Your task to perform on an android device: What's the weather? Image 0: 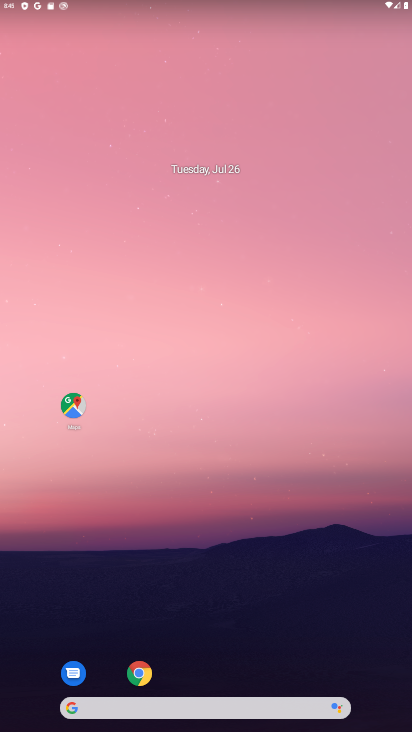
Step 0: drag from (164, 58) to (171, 6)
Your task to perform on an android device: What's the weather? Image 1: 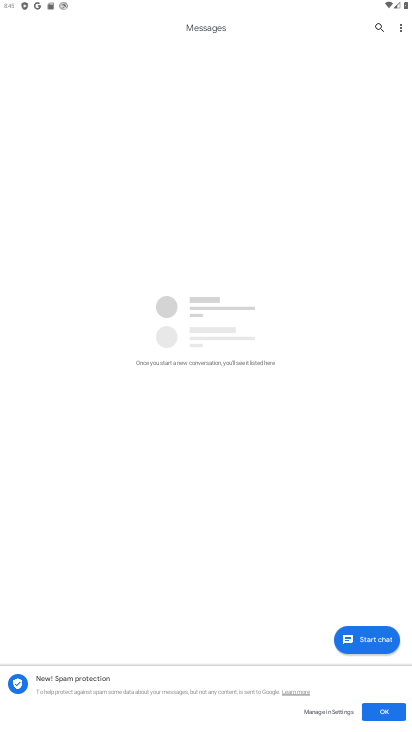
Step 1: drag from (258, 380) to (242, 60)
Your task to perform on an android device: What's the weather? Image 2: 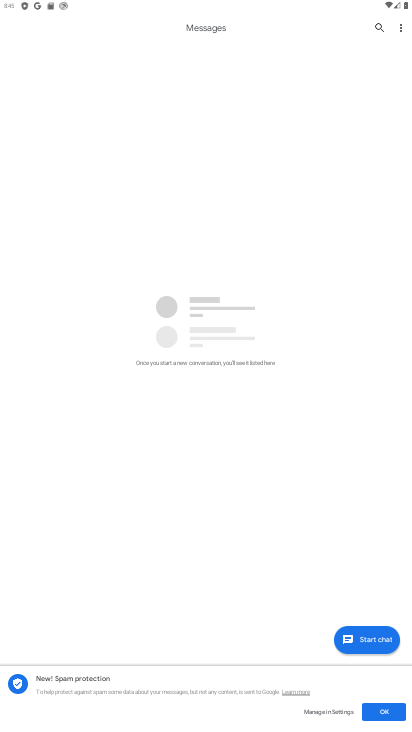
Step 2: click (386, 713)
Your task to perform on an android device: What's the weather? Image 3: 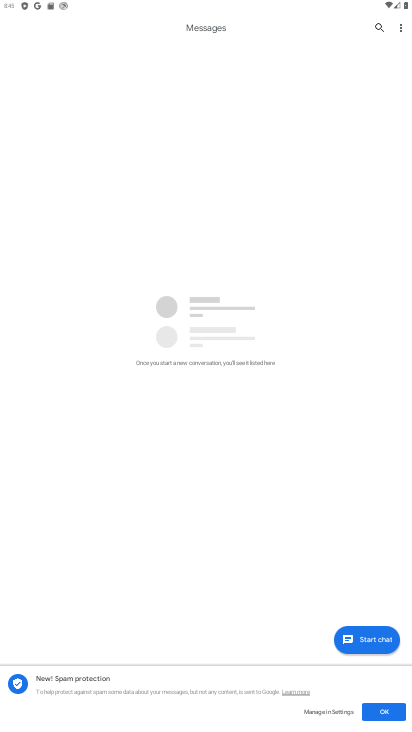
Step 3: click (385, 712)
Your task to perform on an android device: What's the weather? Image 4: 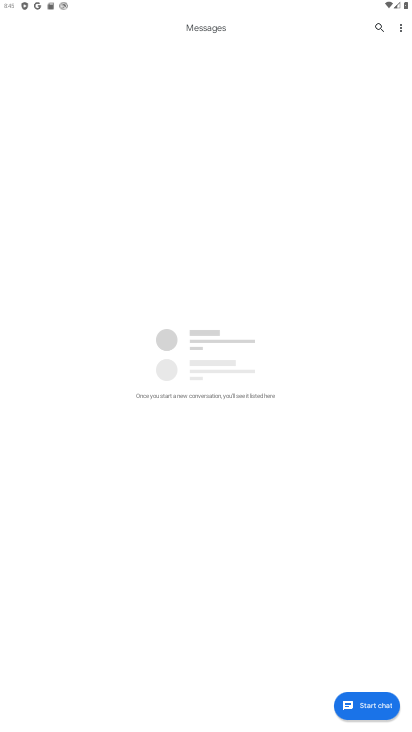
Step 4: press back button
Your task to perform on an android device: What's the weather? Image 5: 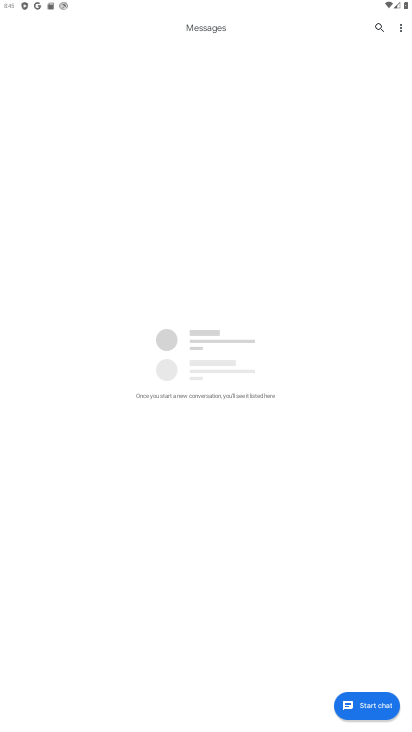
Step 5: press back button
Your task to perform on an android device: What's the weather? Image 6: 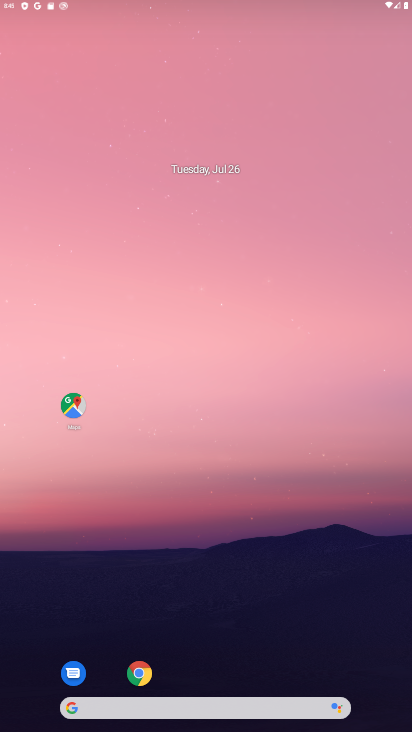
Step 6: press back button
Your task to perform on an android device: What's the weather? Image 7: 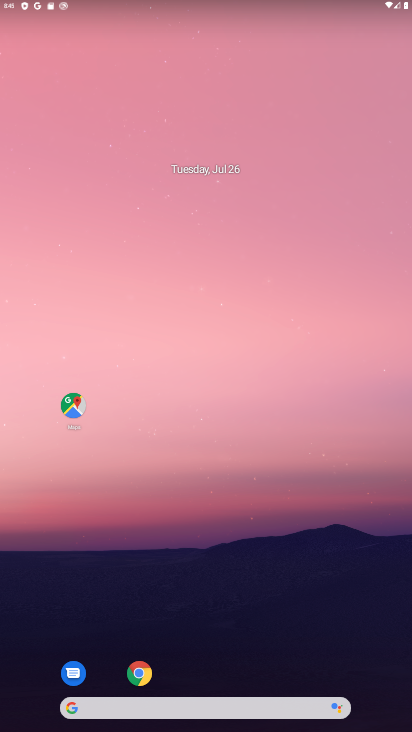
Step 7: click (137, 175)
Your task to perform on an android device: What's the weather? Image 8: 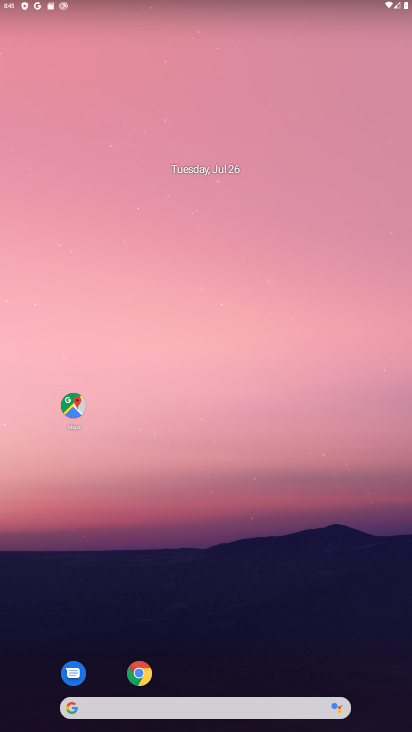
Step 8: drag from (185, 454) to (215, 20)
Your task to perform on an android device: What's the weather? Image 9: 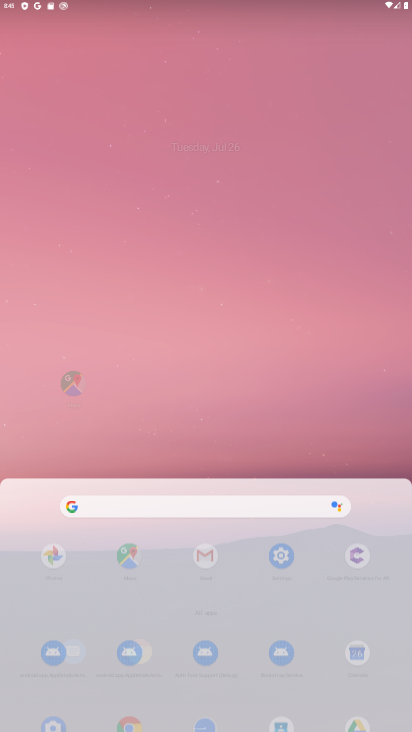
Step 9: drag from (276, 636) to (237, 171)
Your task to perform on an android device: What's the weather? Image 10: 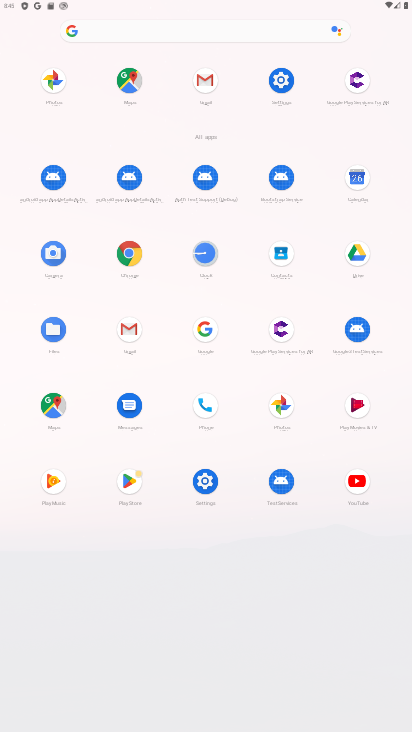
Step 10: click (128, 245)
Your task to perform on an android device: What's the weather? Image 11: 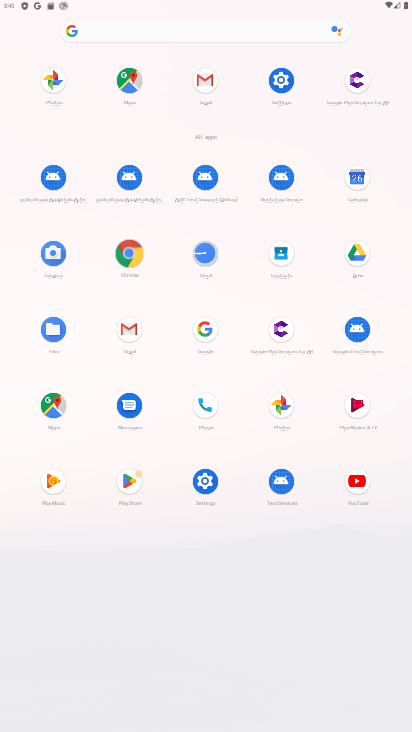
Step 11: click (130, 264)
Your task to perform on an android device: What's the weather? Image 12: 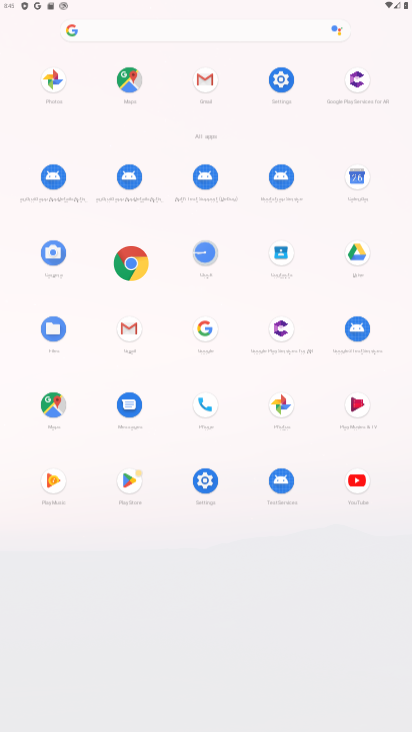
Step 12: click (129, 265)
Your task to perform on an android device: What's the weather? Image 13: 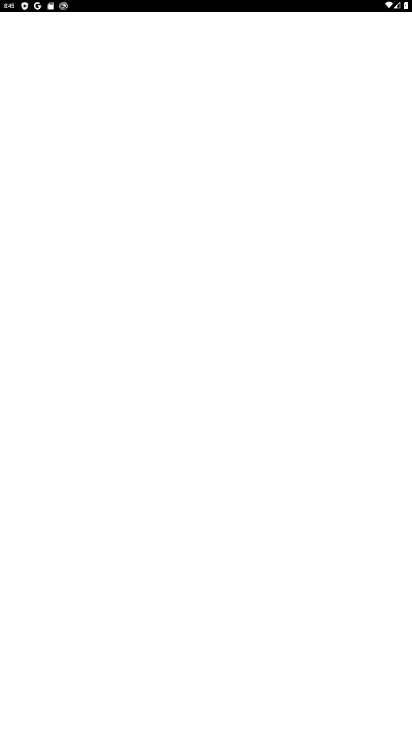
Step 13: click (128, 266)
Your task to perform on an android device: What's the weather? Image 14: 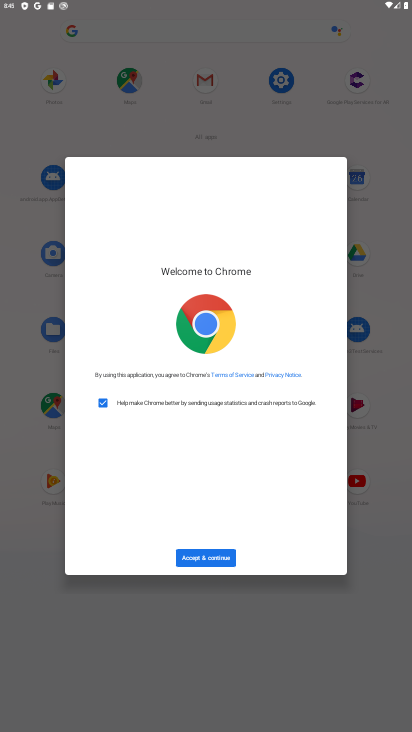
Step 14: click (216, 559)
Your task to perform on an android device: What's the weather? Image 15: 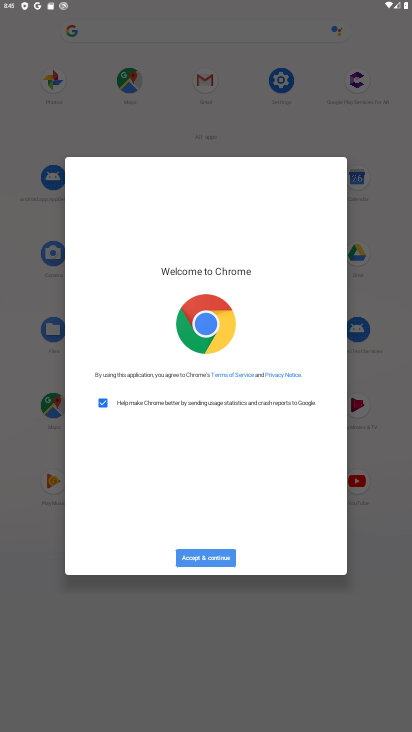
Step 15: click (216, 559)
Your task to perform on an android device: What's the weather? Image 16: 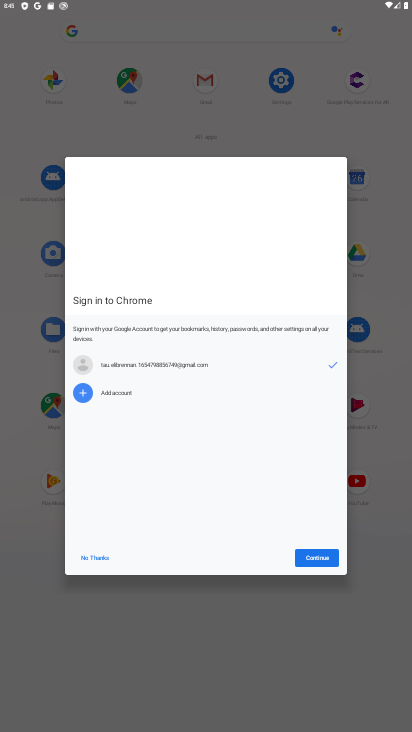
Step 16: click (78, 559)
Your task to perform on an android device: What's the weather? Image 17: 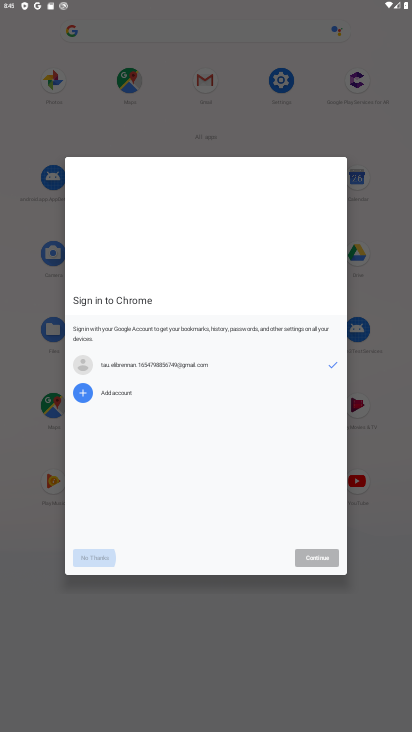
Step 17: click (80, 555)
Your task to perform on an android device: What's the weather? Image 18: 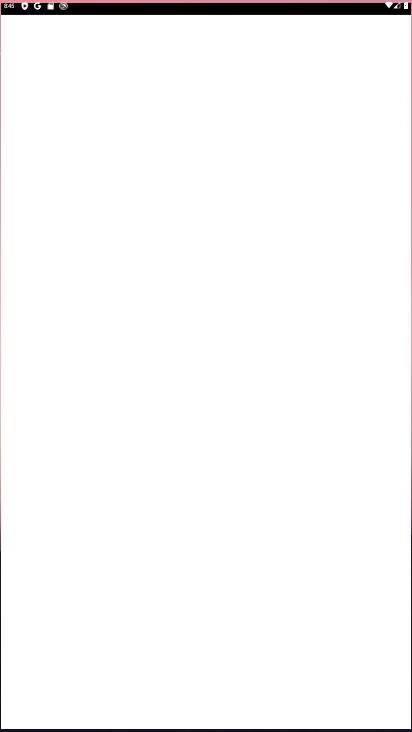
Step 18: click (91, 554)
Your task to perform on an android device: What's the weather? Image 19: 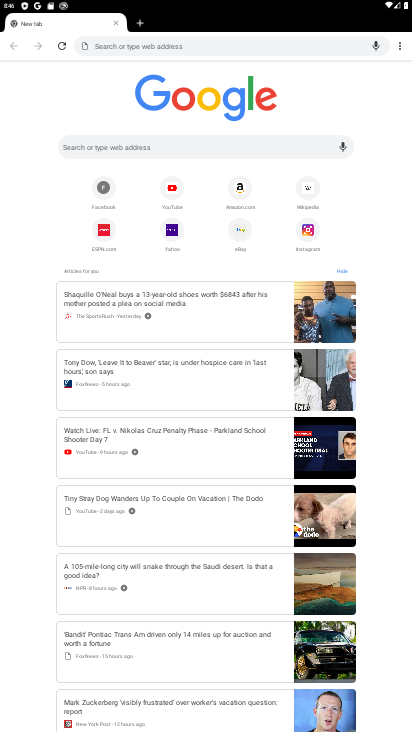
Step 19: type "weather"
Your task to perform on an android device: What's the weather? Image 20: 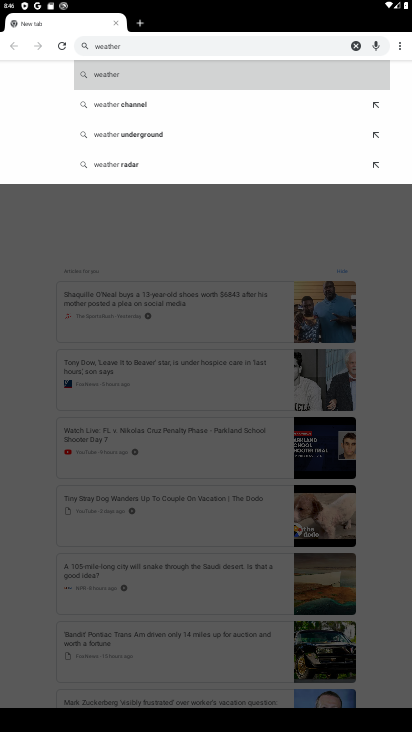
Step 20: click (130, 72)
Your task to perform on an android device: What's the weather? Image 21: 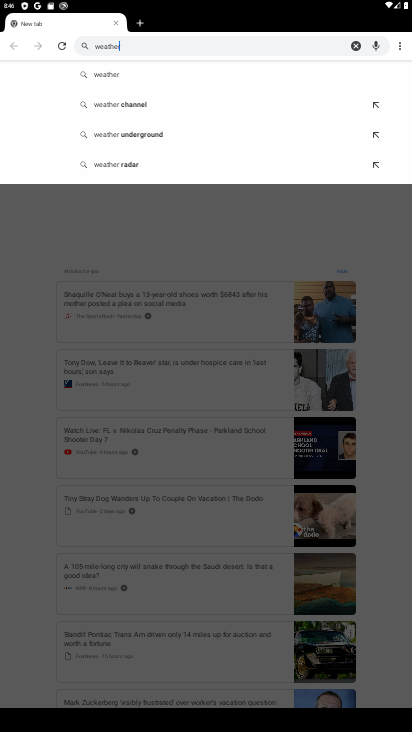
Step 21: click (132, 72)
Your task to perform on an android device: What's the weather? Image 22: 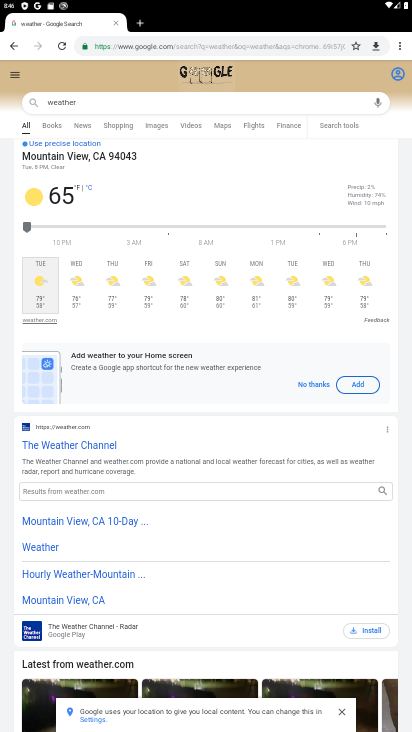
Step 22: task complete